Your task to perform on an android device: Open Chrome and go to settings Image 0: 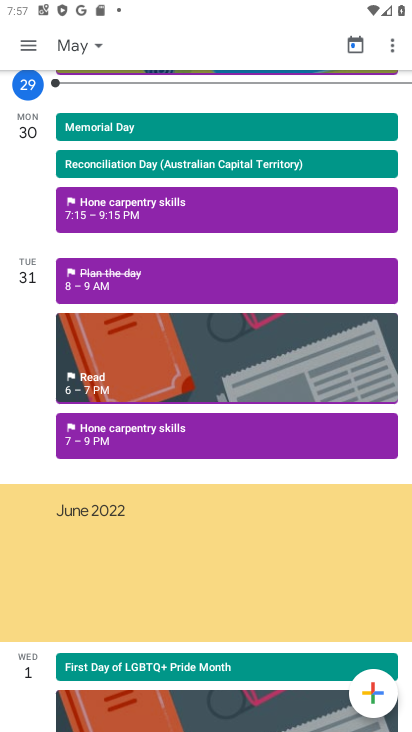
Step 0: press home button
Your task to perform on an android device: Open Chrome and go to settings Image 1: 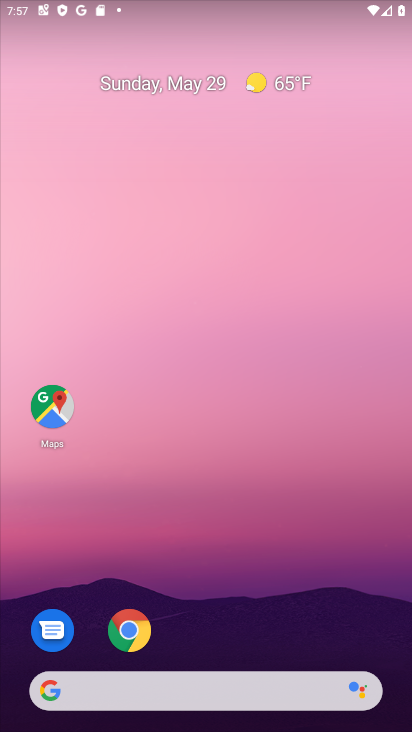
Step 1: click (132, 628)
Your task to perform on an android device: Open Chrome and go to settings Image 2: 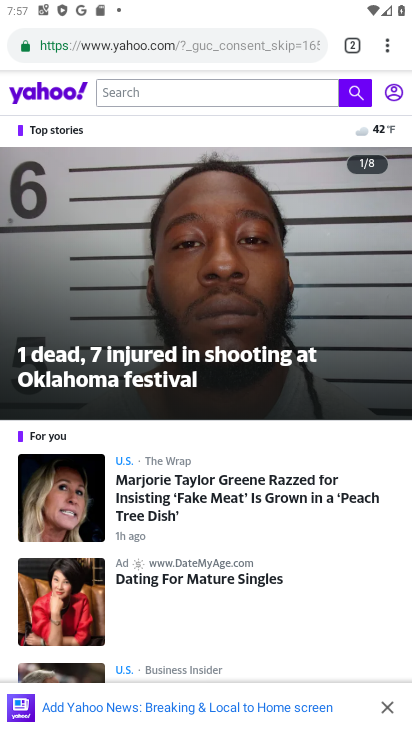
Step 2: click (385, 57)
Your task to perform on an android device: Open Chrome and go to settings Image 3: 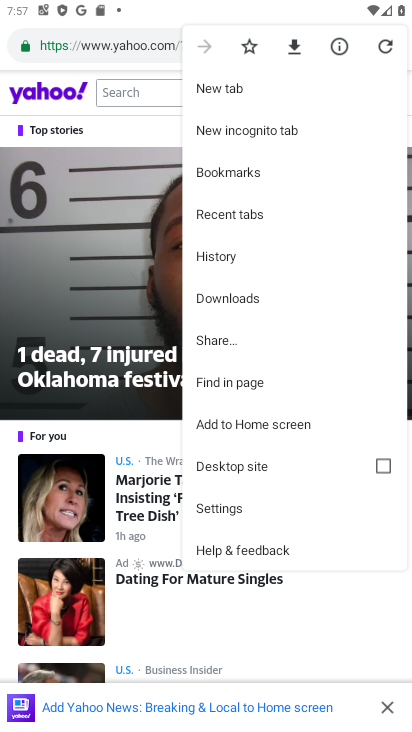
Step 3: click (226, 505)
Your task to perform on an android device: Open Chrome and go to settings Image 4: 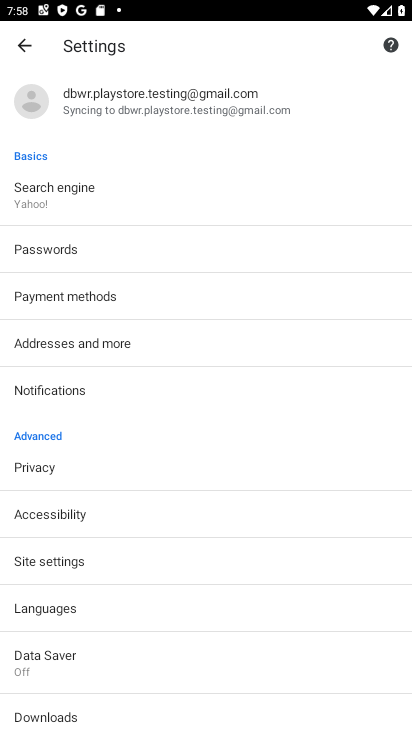
Step 4: task complete